Your task to perform on an android device: Check the weather Image 0: 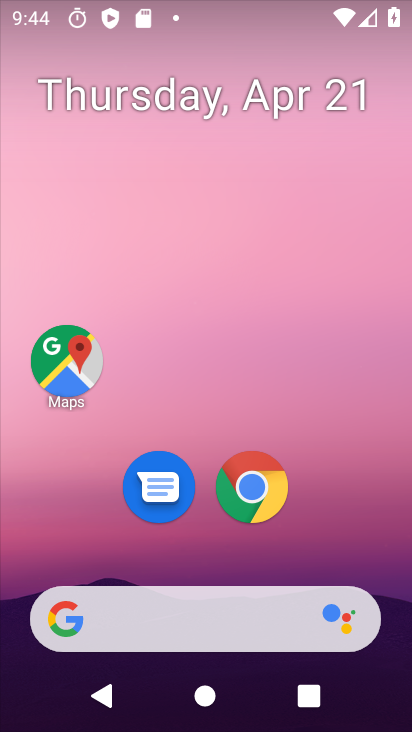
Step 0: drag from (398, 460) to (411, 207)
Your task to perform on an android device: Check the weather Image 1: 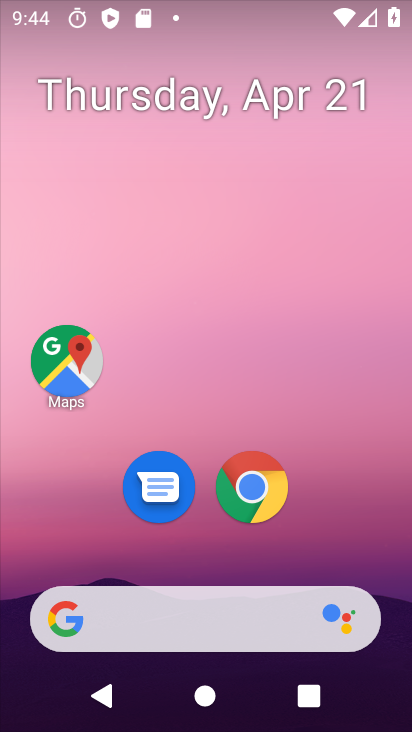
Step 1: drag from (399, 347) to (390, 191)
Your task to perform on an android device: Check the weather Image 2: 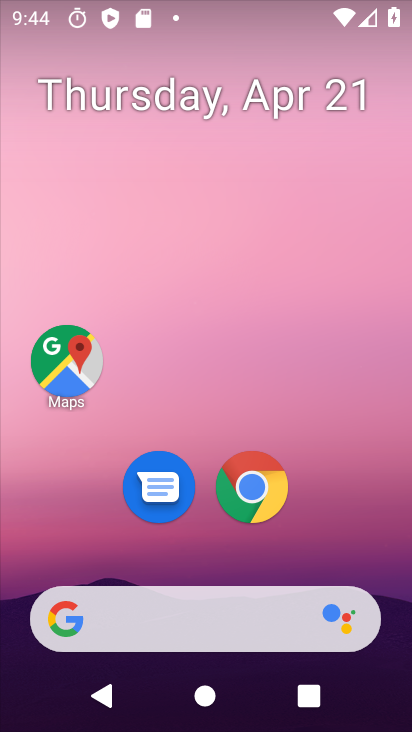
Step 2: drag from (403, 615) to (342, 221)
Your task to perform on an android device: Check the weather Image 3: 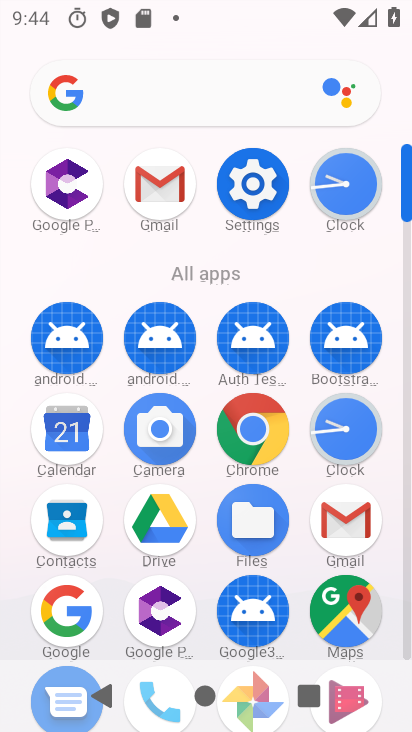
Step 3: drag from (404, 124) to (408, 31)
Your task to perform on an android device: Check the weather Image 4: 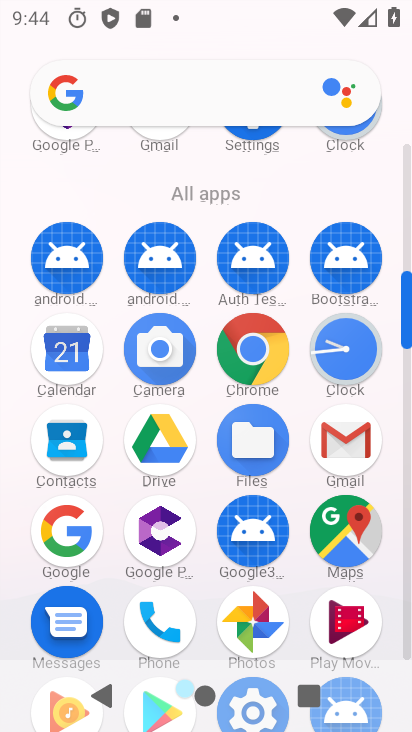
Step 4: drag from (410, 271) to (398, 128)
Your task to perform on an android device: Check the weather Image 5: 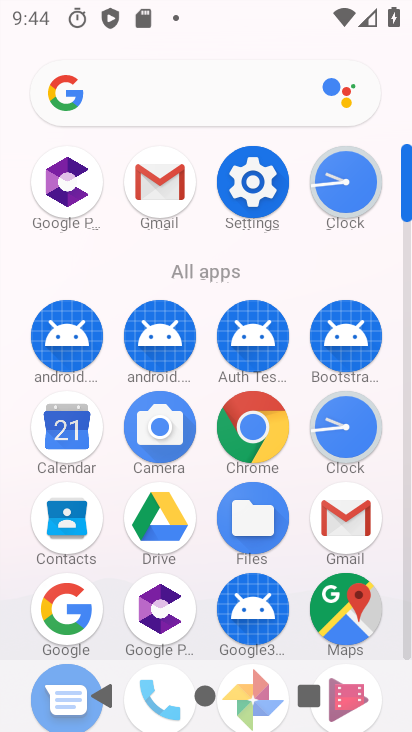
Step 5: click (77, 603)
Your task to perform on an android device: Check the weather Image 6: 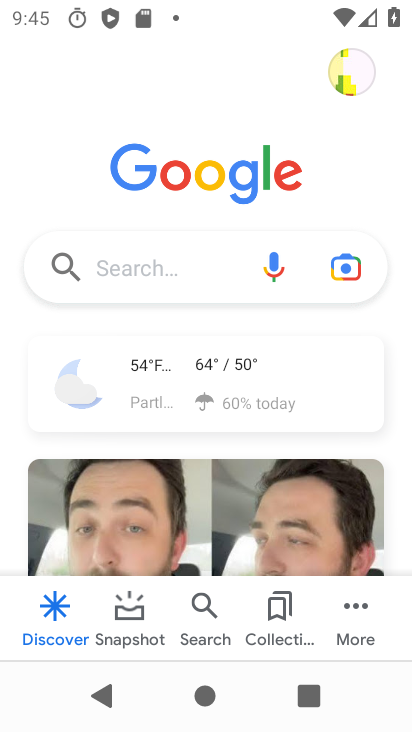
Step 6: click (144, 360)
Your task to perform on an android device: Check the weather Image 7: 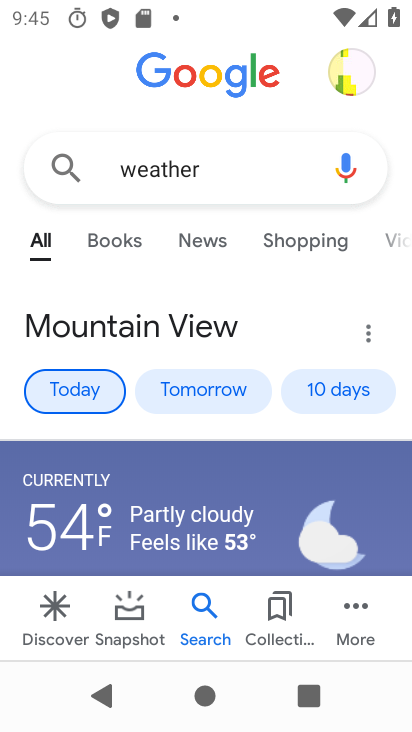
Step 7: task complete